Your task to perform on an android device: search for starred emails in the gmail app Image 0: 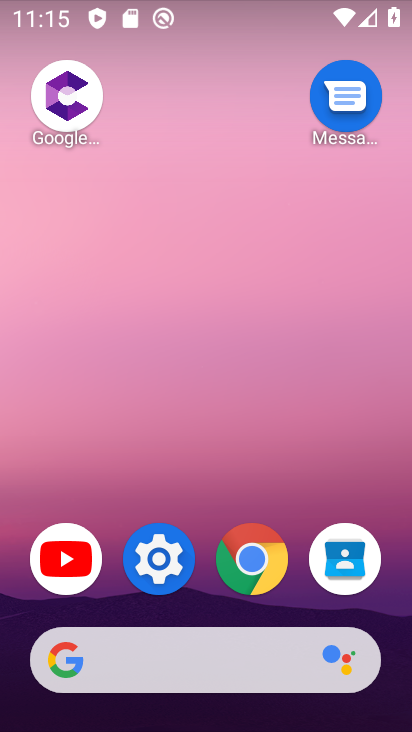
Step 0: drag from (22, 273) to (381, 224)
Your task to perform on an android device: search for starred emails in the gmail app Image 1: 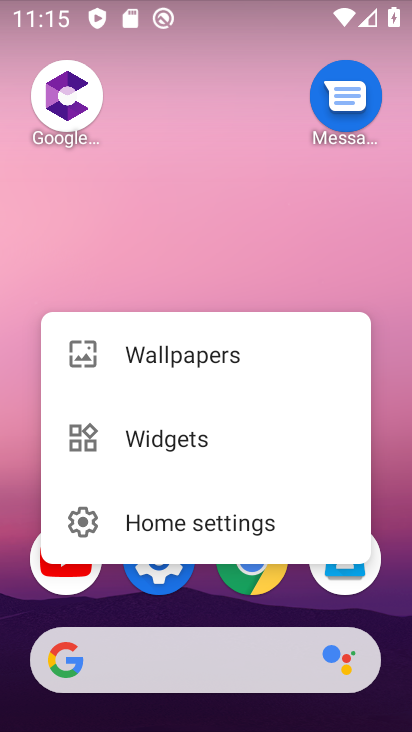
Step 1: click (36, 202)
Your task to perform on an android device: search for starred emails in the gmail app Image 2: 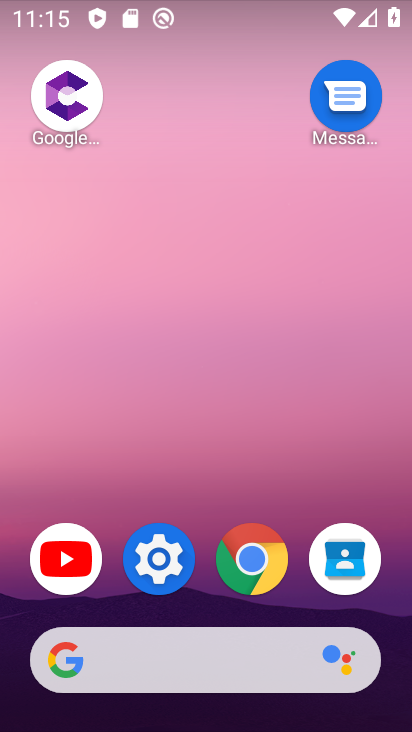
Step 2: drag from (23, 294) to (398, 243)
Your task to perform on an android device: search for starred emails in the gmail app Image 3: 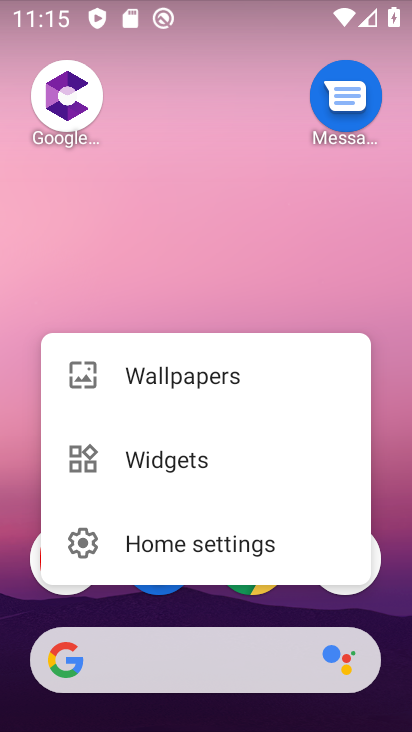
Step 3: click (23, 250)
Your task to perform on an android device: search for starred emails in the gmail app Image 4: 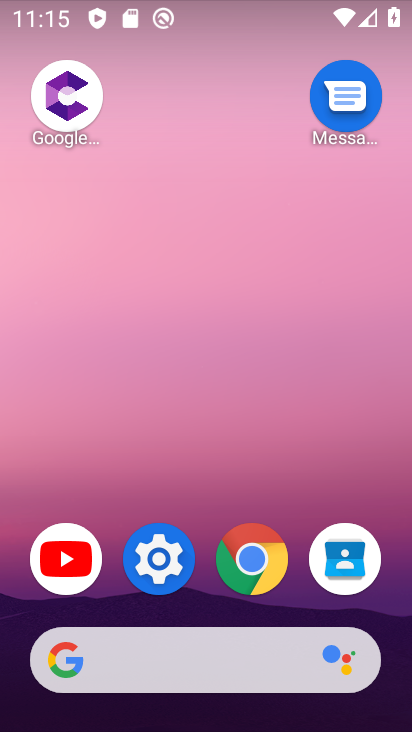
Step 4: drag from (24, 251) to (404, 228)
Your task to perform on an android device: search for starred emails in the gmail app Image 5: 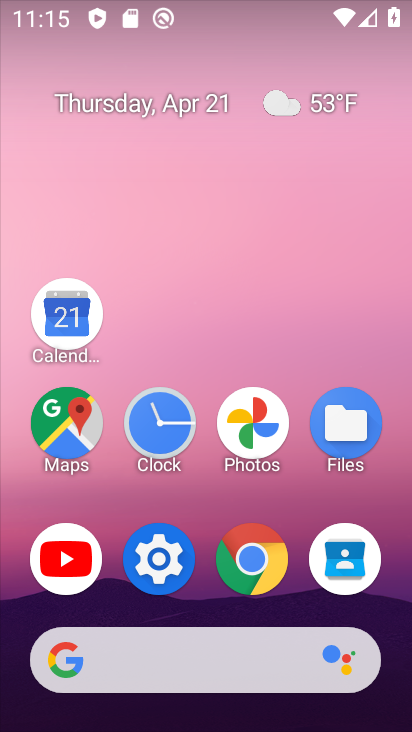
Step 5: drag from (207, 726) to (0, 58)
Your task to perform on an android device: search for starred emails in the gmail app Image 6: 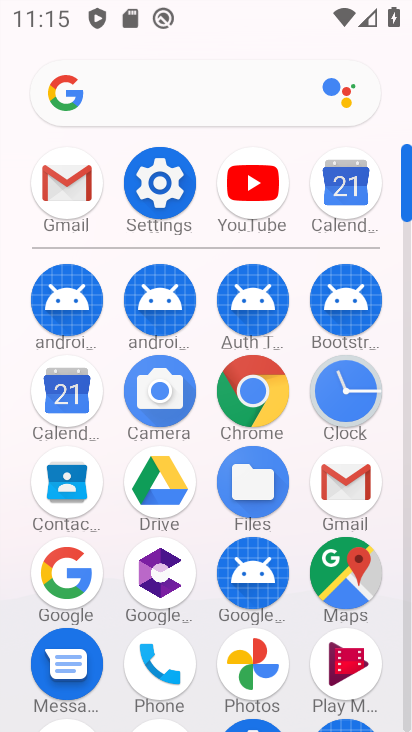
Step 6: click (51, 184)
Your task to perform on an android device: search for starred emails in the gmail app Image 7: 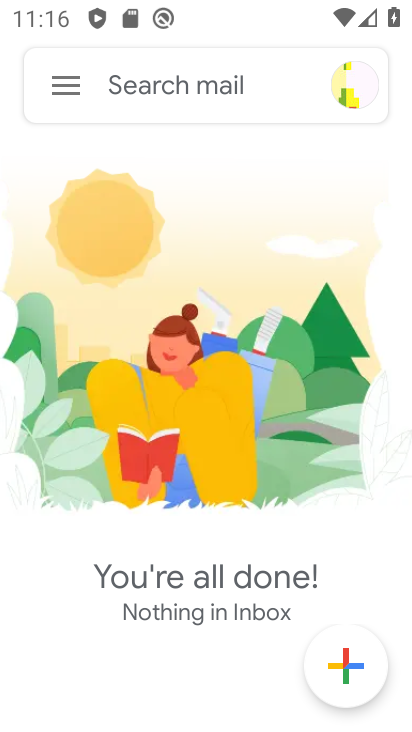
Step 7: click (68, 93)
Your task to perform on an android device: search for starred emails in the gmail app Image 8: 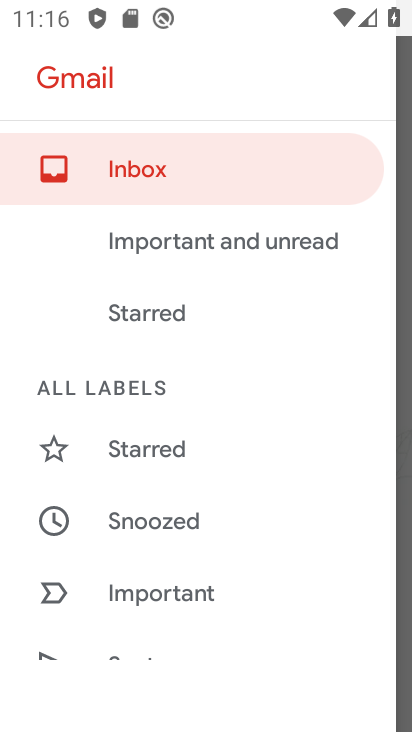
Step 8: click (187, 314)
Your task to perform on an android device: search for starred emails in the gmail app Image 9: 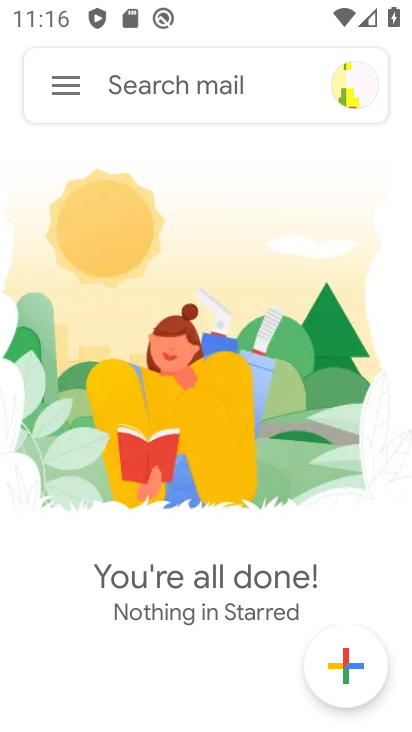
Step 9: task complete